Your task to perform on an android device: Search for Mexican restaurants on Maps Image 0: 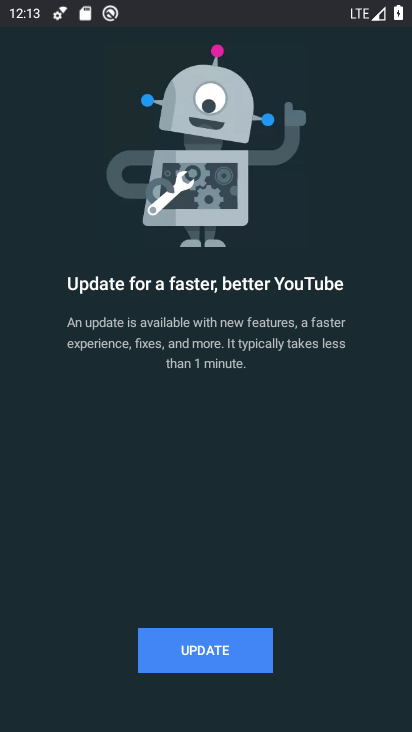
Step 0: press home button
Your task to perform on an android device: Search for Mexican restaurants on Maps Image 1: 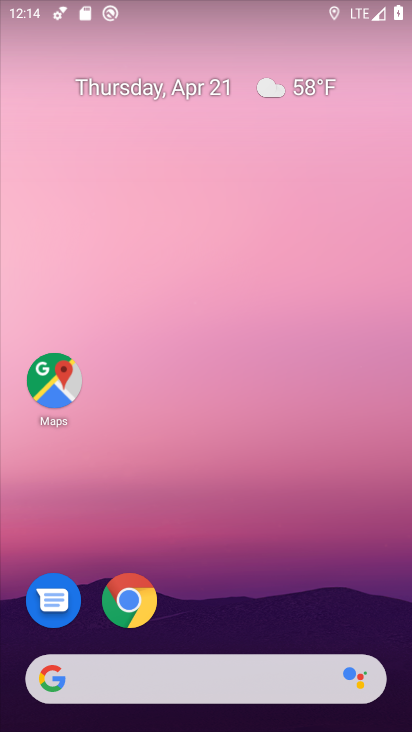
Step 1: click (58, 388)
Your task to perform on an android device: Search for Mexican restaurants on Maps Image 2: 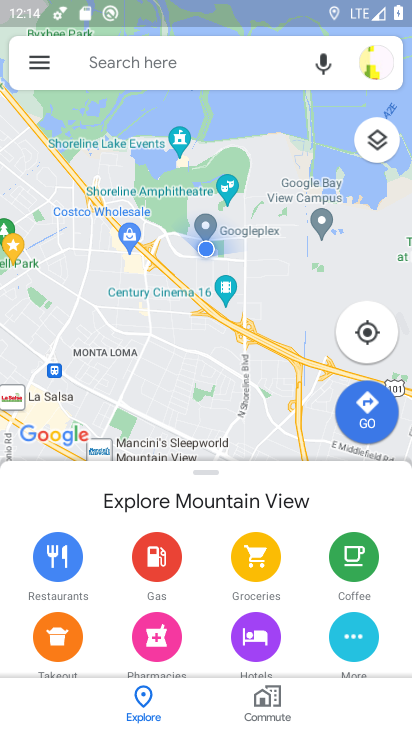
Step 2: click (226, 55)
Your task to perform on an android device: Search for Mexican restaurants on Maps Image 3: 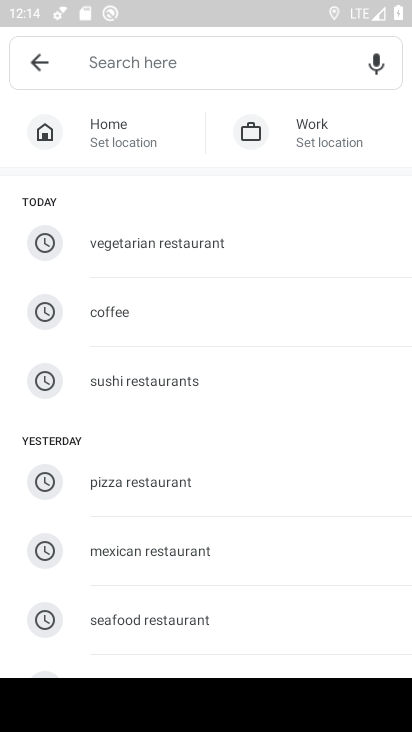
Step 3: click (198, 540)
Your task to perform on an android device: Search for Mexican restaurants on Maps Image 4: 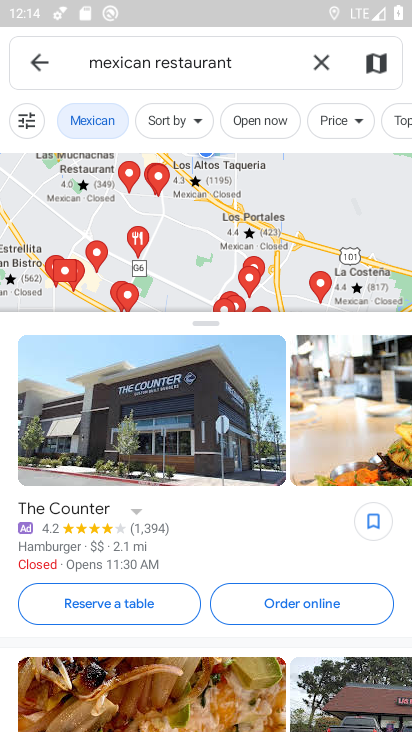
Step 4: task complete